Your task to perform on an android device: Open Android settings Image 0: 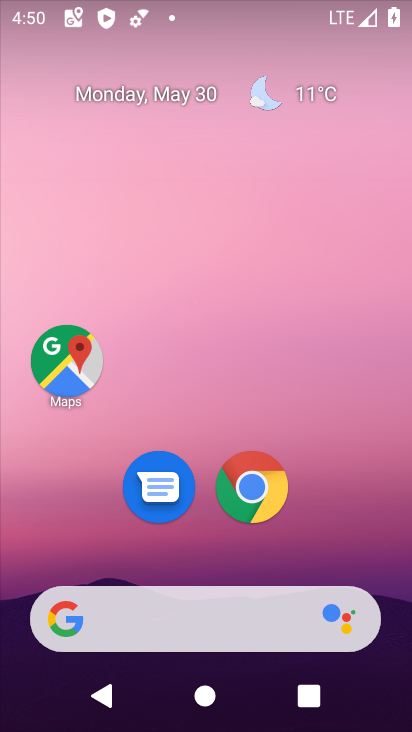
Step 0: drag from (368, 563) to (334, 23)
Your task to perform on an android device: Open Android settings Image 1: 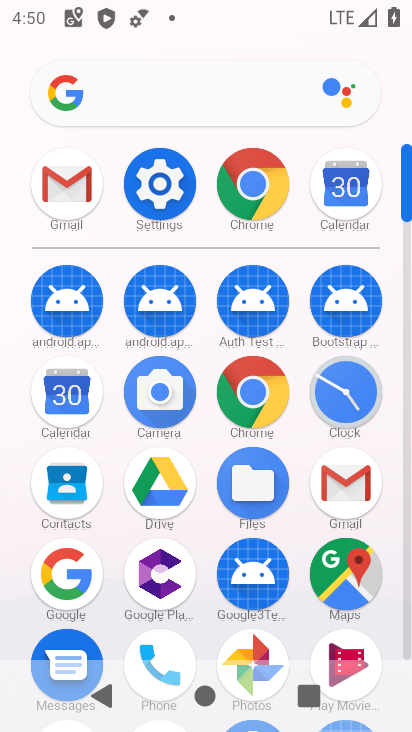
Step 1: click (406, 621)
Your task to perform on an android device: Open Android settings Image 2: 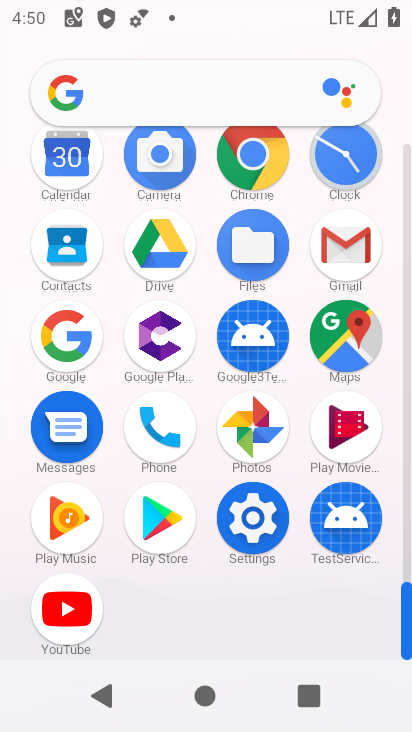
Step 2: click (253, 517)
Your task to perform on an android device: Open Android settings Image 3: 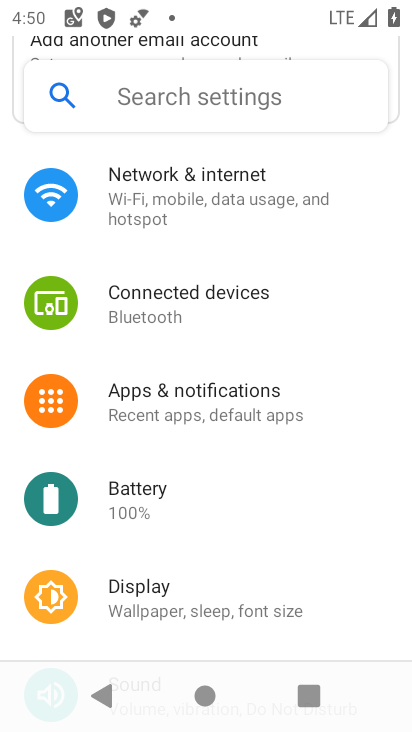
Step 3: drag from (310, 613) to (292, 170)
Your task to perform on an android device: Open Android settings Image 4: 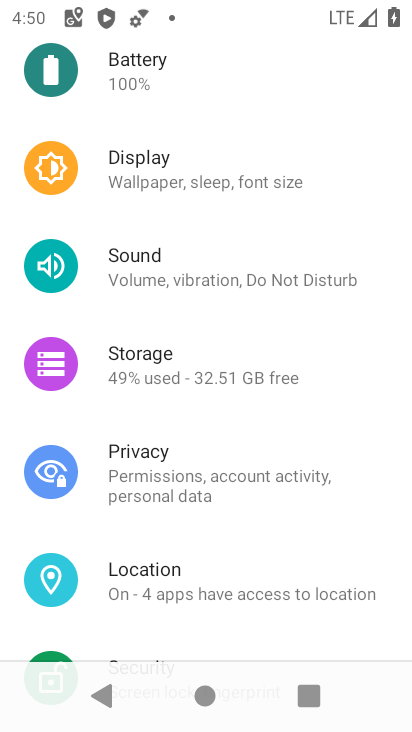
Step 4: drag from (326, 554) to (269, 142)
Your task to perform on an android device: Open Android settings Image 5: 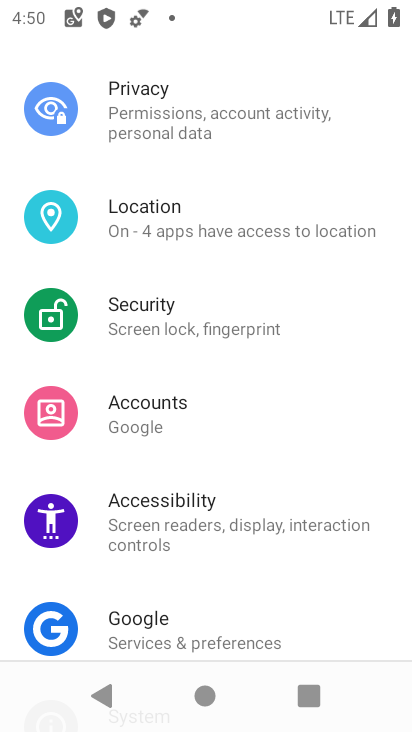
Step 5: drag from (301, 609) to (319, 142)
Your task to perform on an android device: Open Android settings Image 6: 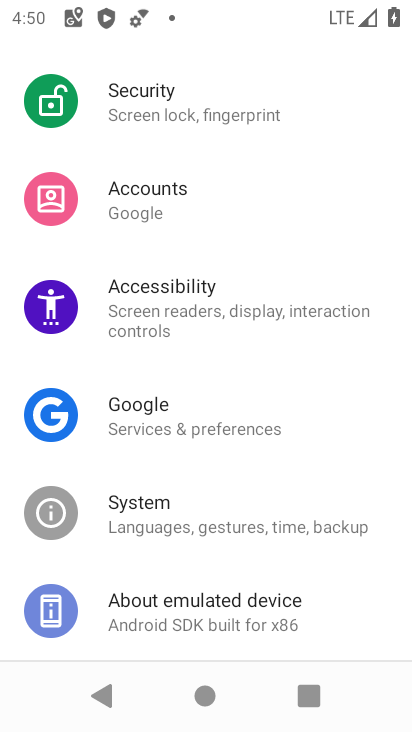
Step 6: click (131, 619)
Your task to perform on an android device: Open Android settings Image 7: 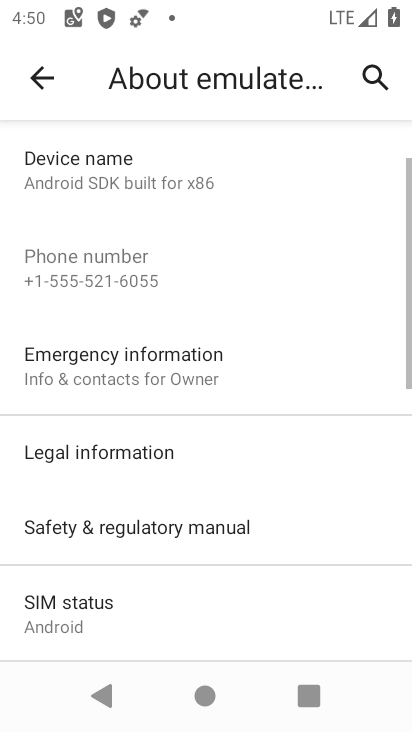
Step 7: task complete